Your task to perform on an android device: set an alarm Image 0: 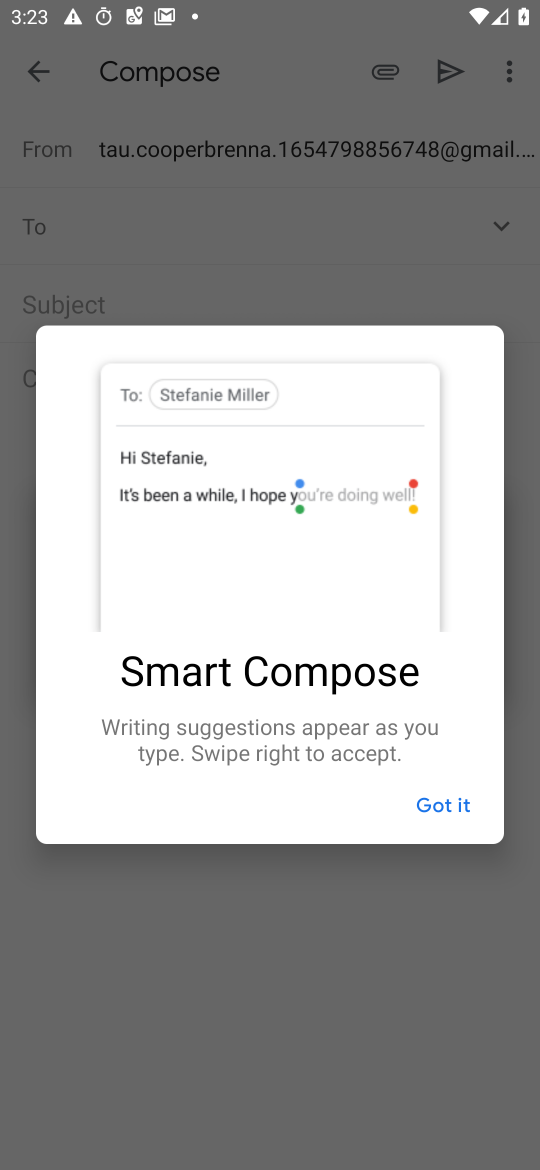
Step 0: press home button
Your task to perform on an android device: set an alarm Image 1: 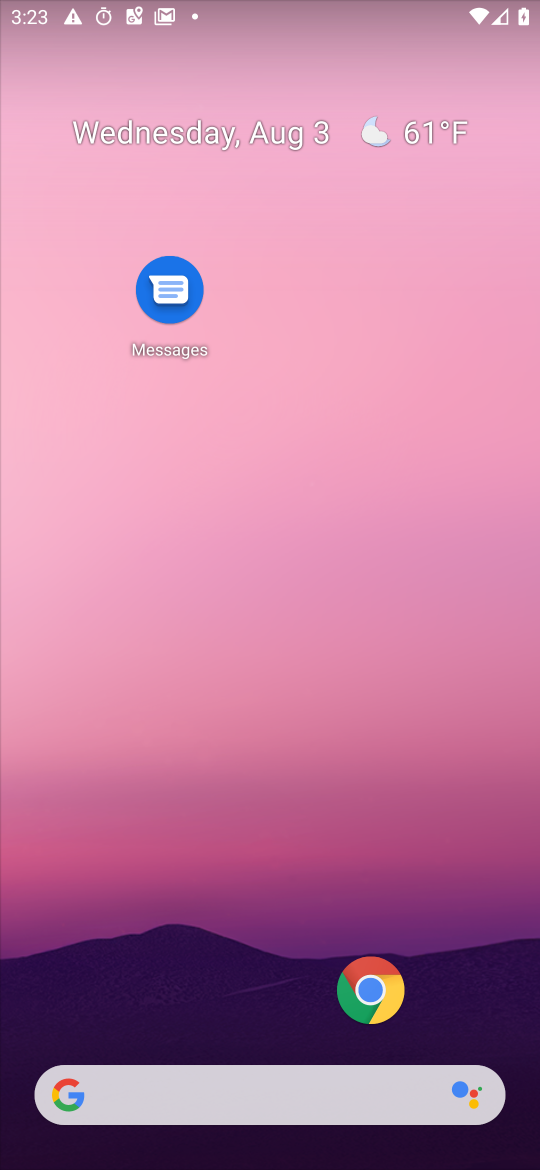
Step 1: drag from (243, 1066) to (275, 171)
Your task to perform on an android device: set an alarm Image 2: 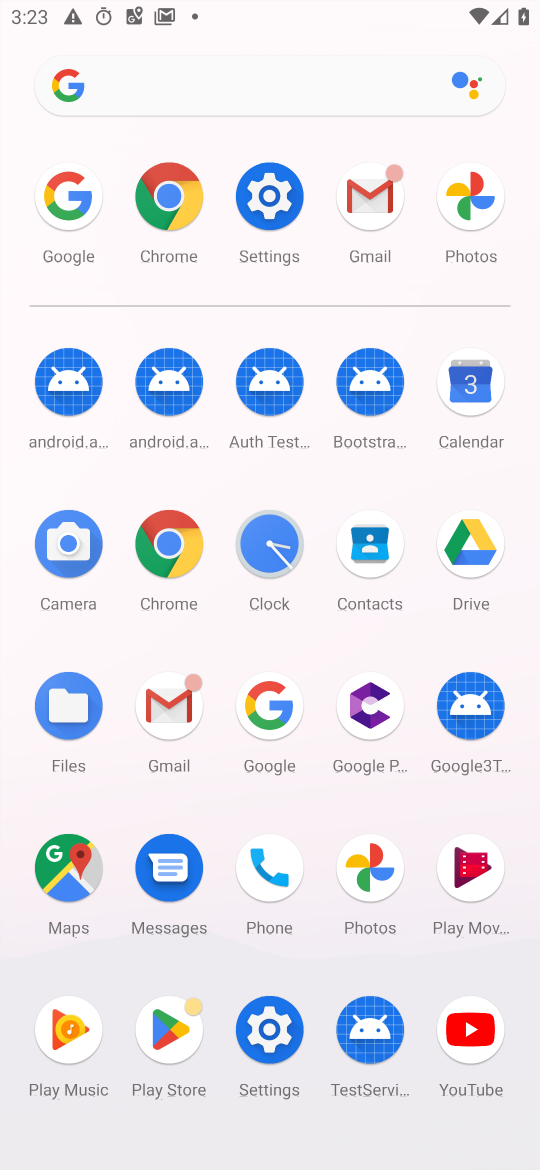
Step 2: click (271, 562)
Your task to perform on an android device: set an alarm Image 3: 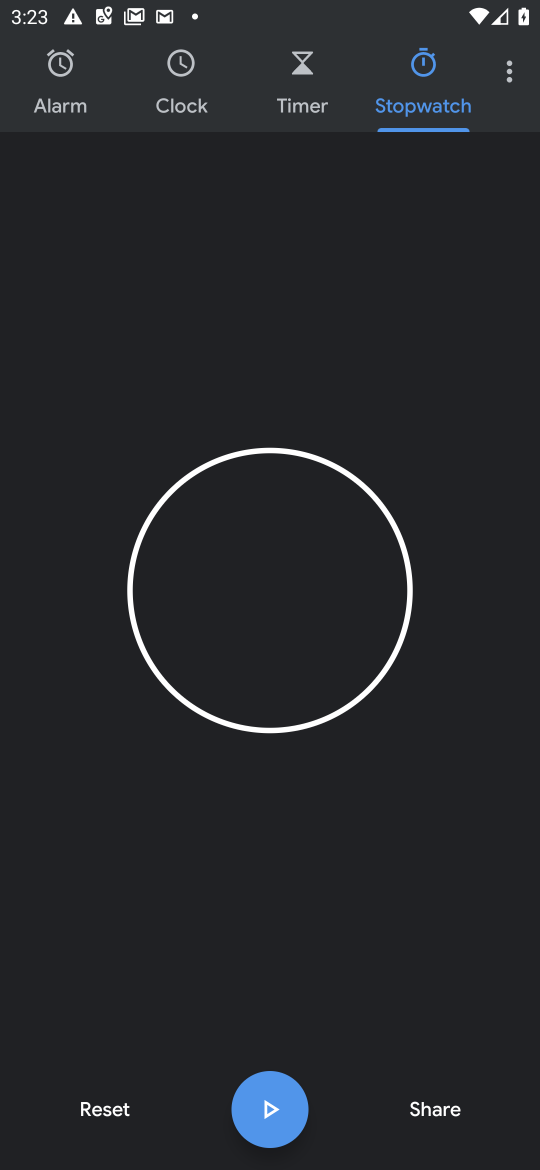
Step 3: click (60, 80)
Your task to perform on an android device: set an alarm Image 4: 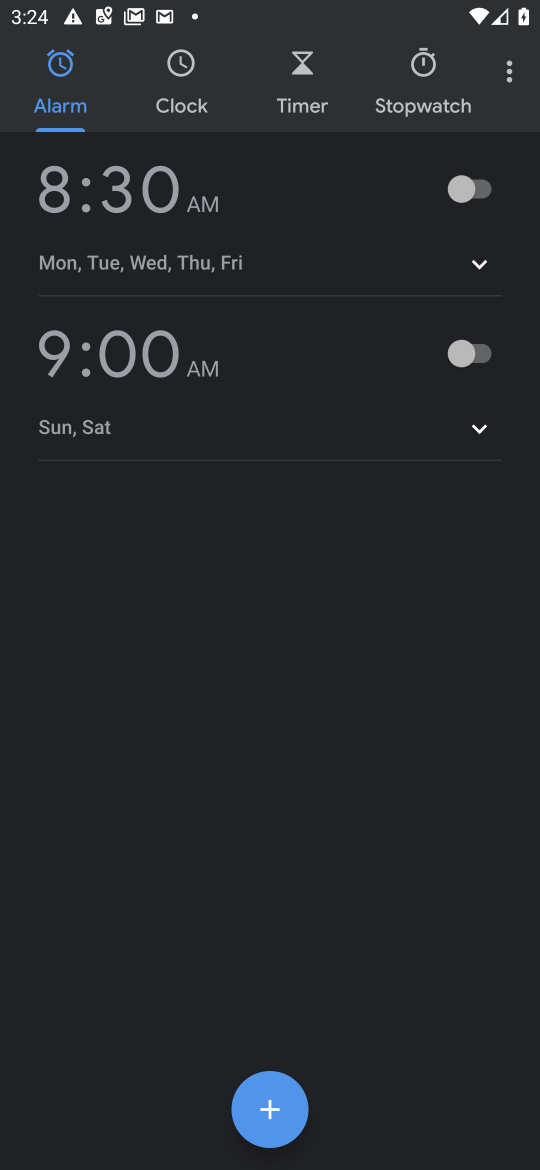
Step 4: click (267, 1120)
Your task to perform on an android device: set an alarm Image 5: 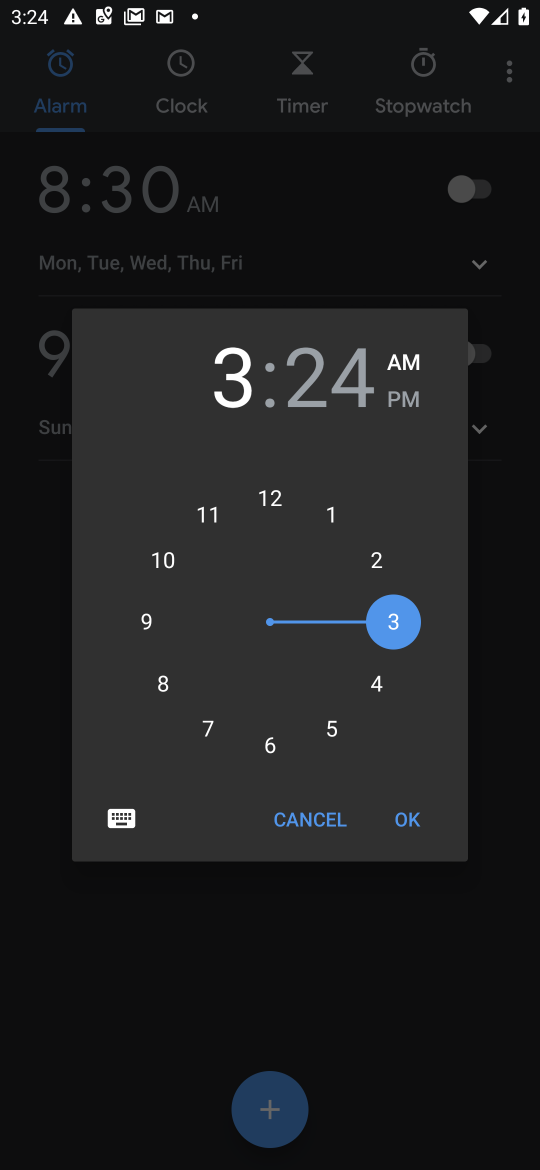
Step 5: click (173, 679)
Your task to perform on an android device: set an alarm Image 6: 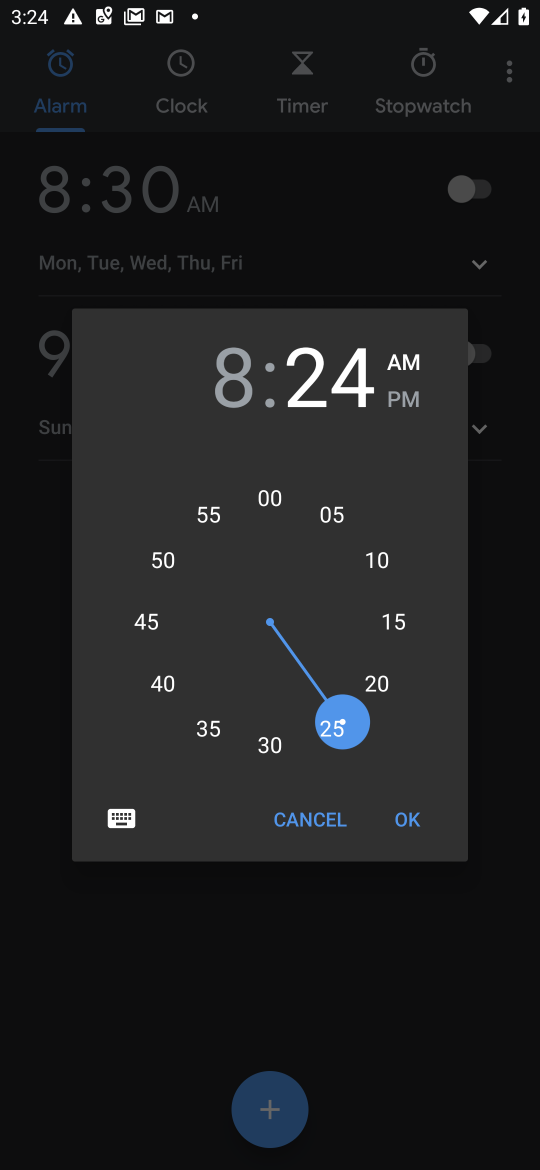
Step 6: click (262, 496)
Your task to perform on an android device: set an alarm Image 7: 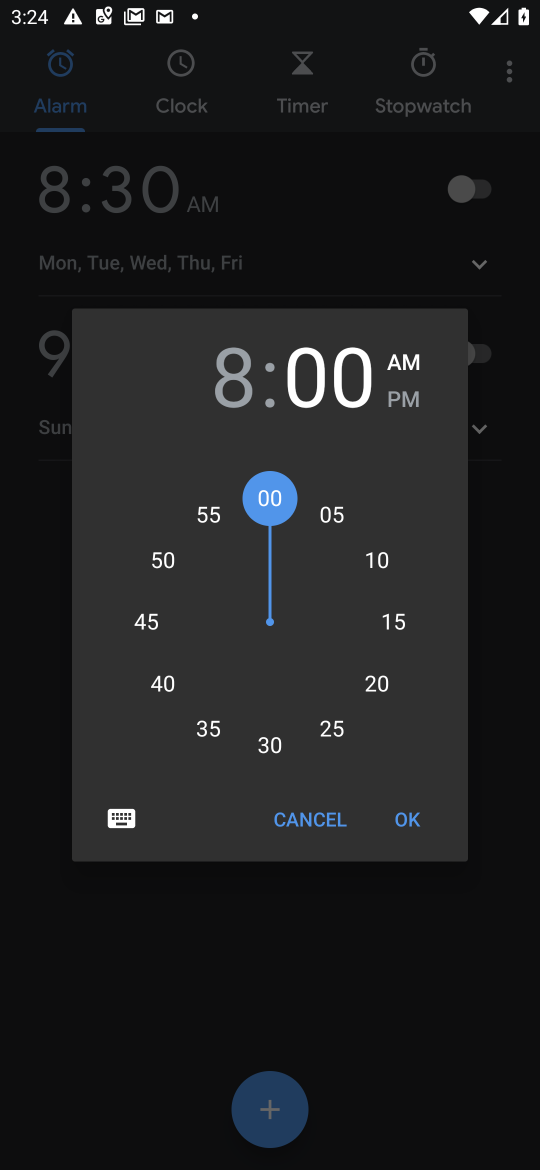
Step 7: click (412, 402)
Your task to perform on an android device: set an alarm Image 8: 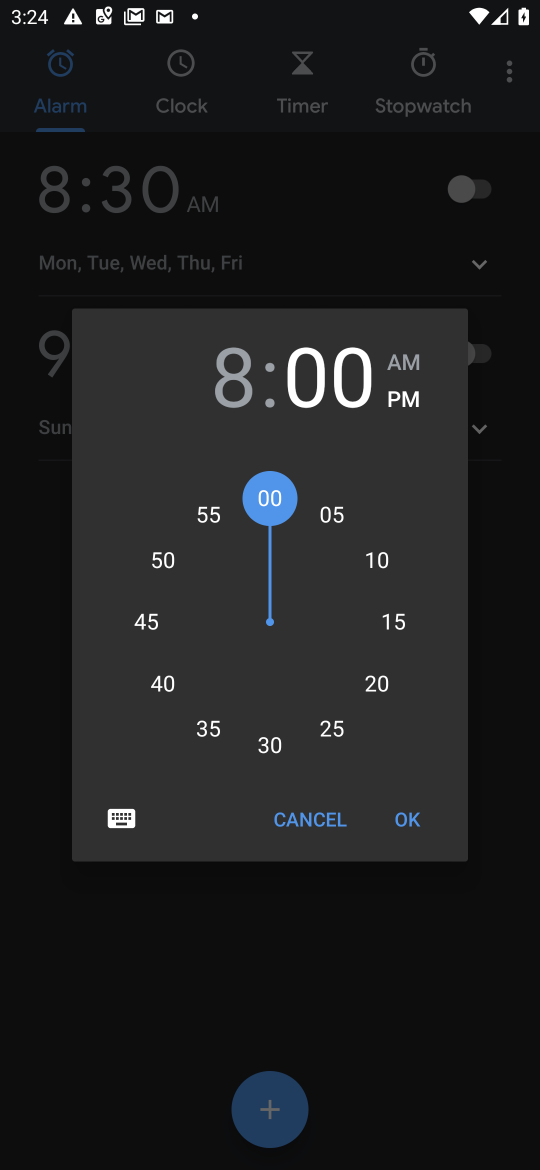
Step 8: click (411, 822)
Your task to perform on an android device: set an alarm Image 9: 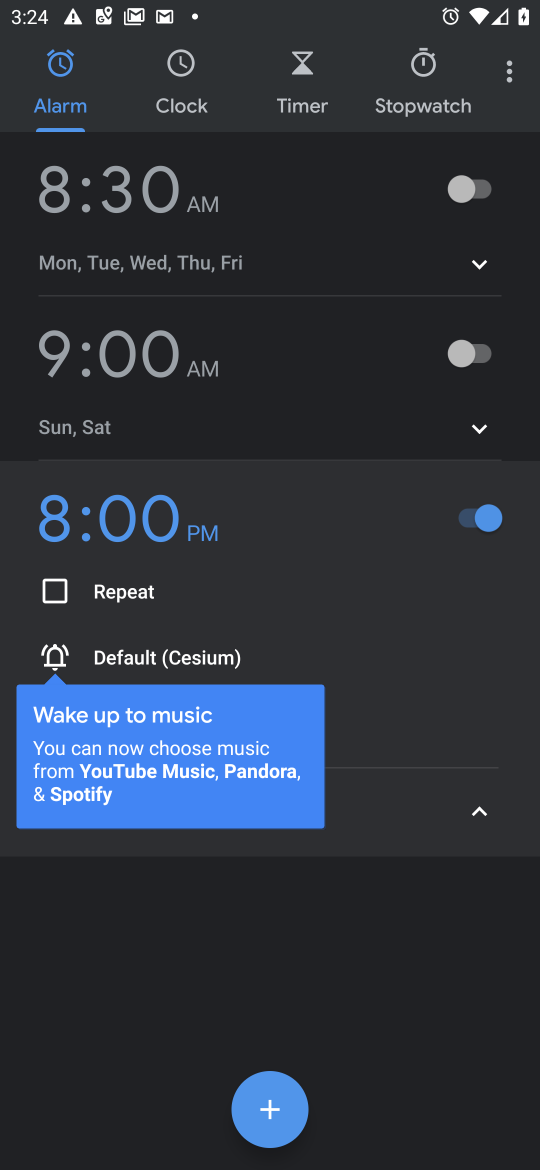
Step 9: task complete